Your task to perform on an android device: Open Google Maps and go to "Timeline" Image 0: 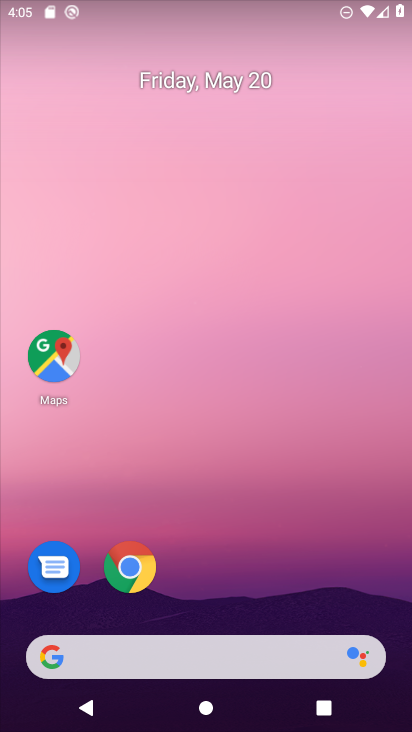
Step 0: drag from (221, 718) to (219, 238)
Your task to perform on an android device: Open Google Maps and go to "Timeline" Image 1: 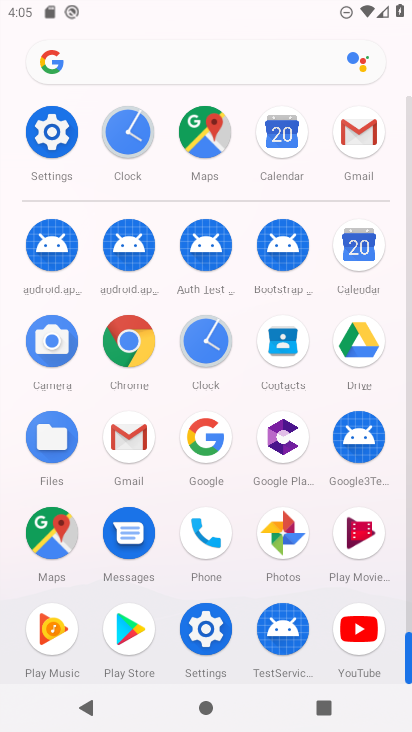
Step 1: click (54, 532)
Your task to perform on an android device: Open Google Maps and go to "Timeline" Image 2: 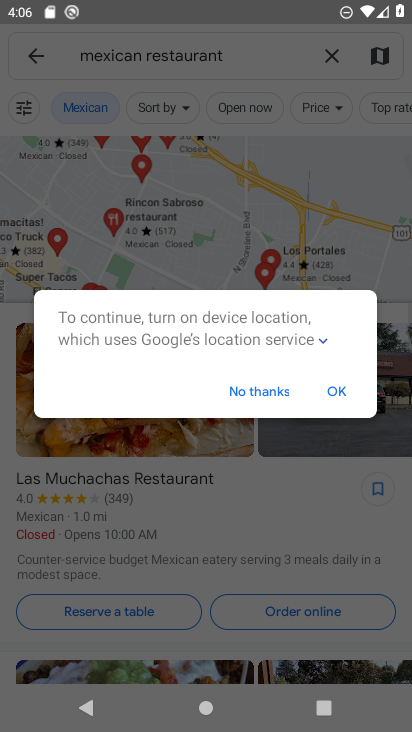
Step 2: click (270, 387)
Your task to perform on an android device: Open Google Maps and go to "Timeline" Image 3: 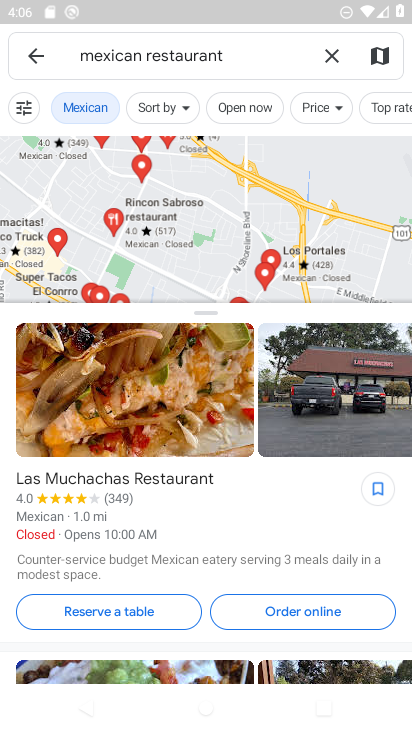
Step 3: click (37, 51)
Your task to perform on an android device: Open Google Maps and go to "Timeline" Image 4: 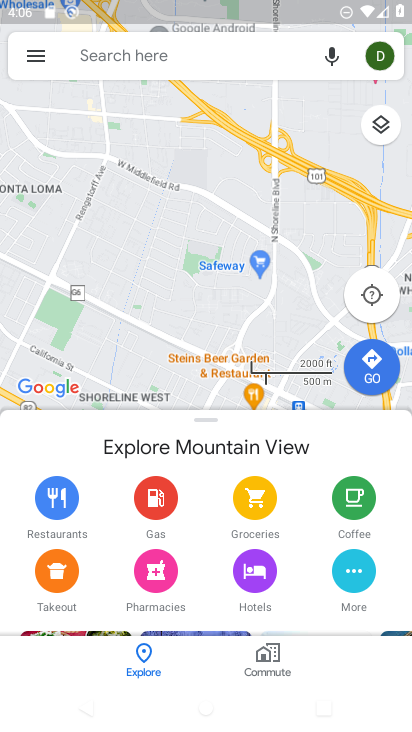
Step 4: click (33, 59)
Your task to perform on an android device: Open Google Maps and go to "Timeline" Image 5: 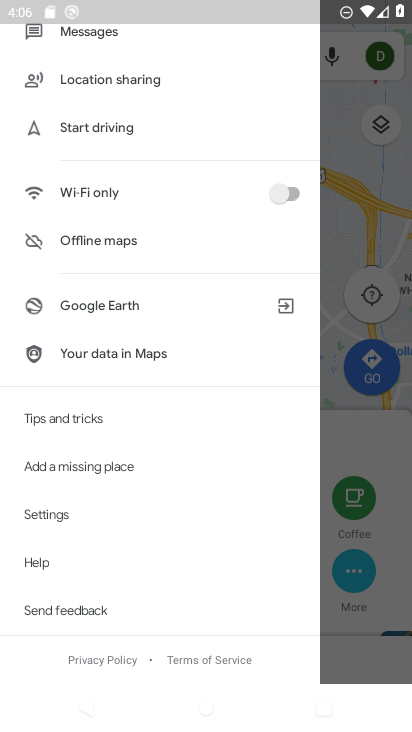
Step 5: drag from (186, 110) to (181, 439)
Your task to perform on an android device: Open Google Maps and go to "Timeline" Image 6: 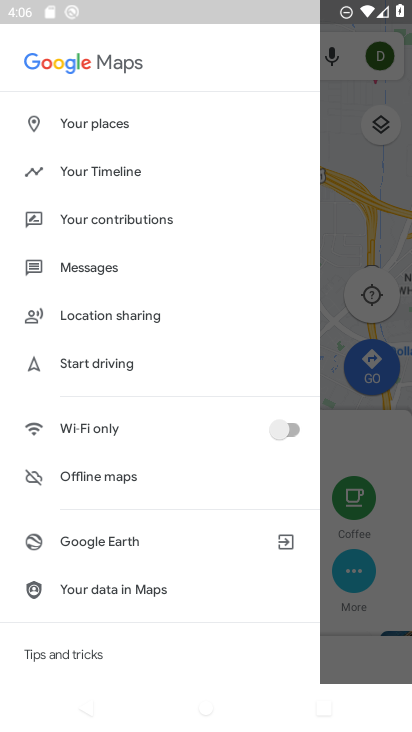
Step 6: click (99, 166)
Your task to perform on an android device: Open Google Maps and go to "Timeline" Image 7: 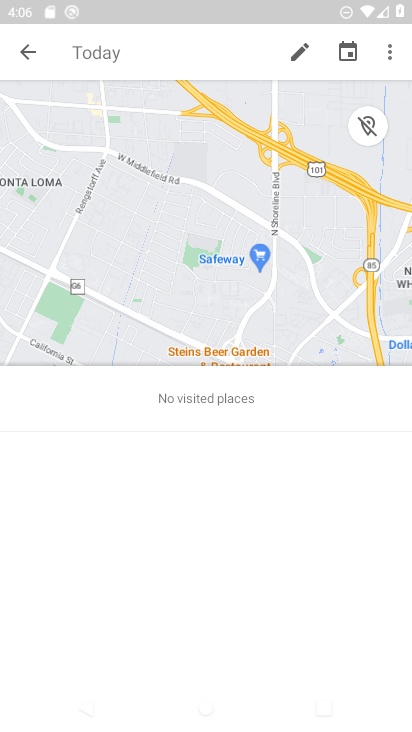
Step 7: task complete